Your task to perform on an android device: turn on the 12-hour format for clock Image 0: 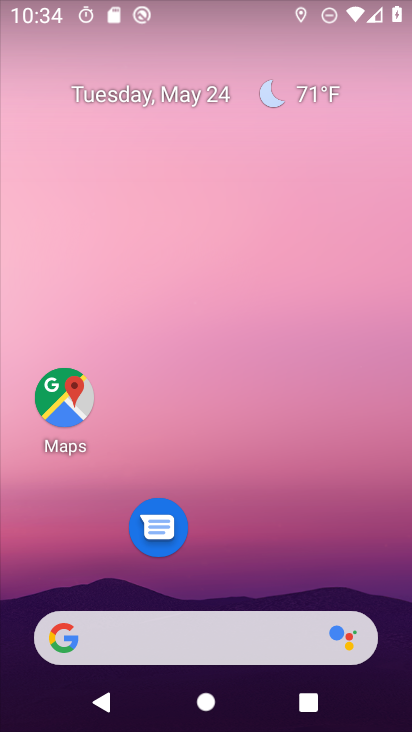
Step 0: drag from (229, 557) to (260, 105)
Your task to perform on an android device: turn on the 12-hour format for clock Image 1: 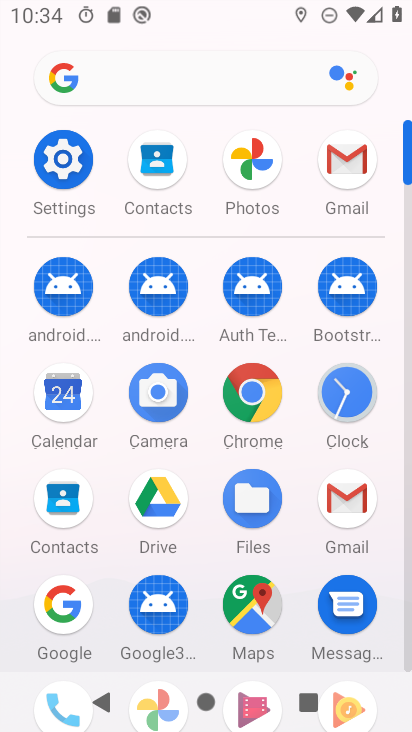
Step 1: click (347, 394)
Your task to perform on an android device: turn on the 12-hour format for clock Image 2: 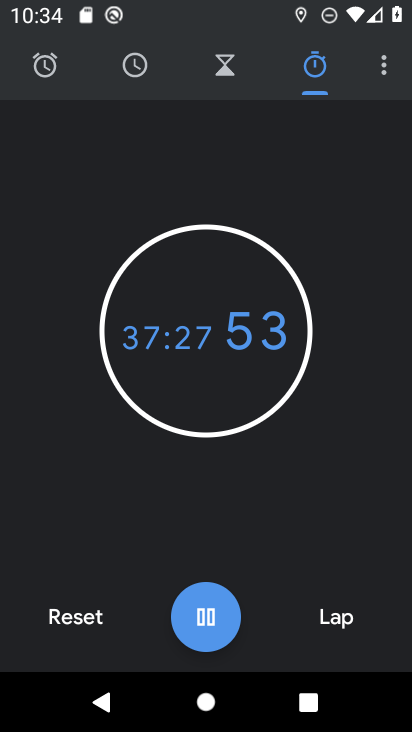
Step 2: click (374, 73)
Your task to perform on an android device: turn on the 12-hour format for clock Image 3: 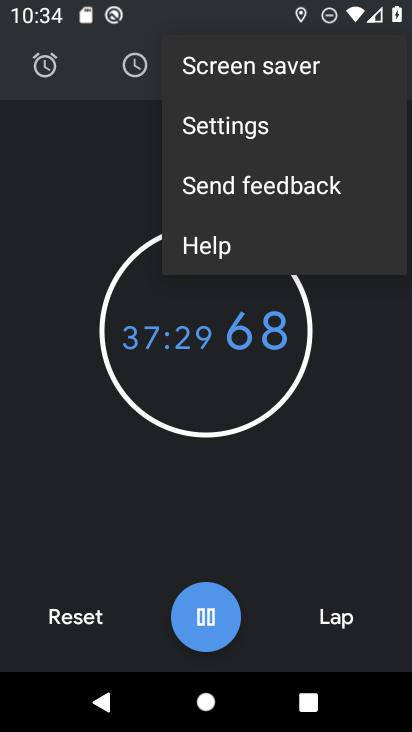
Step 3: click (295, 116)
Your task to perform on an android device: turn on the 12-hour format for clock Image 4: 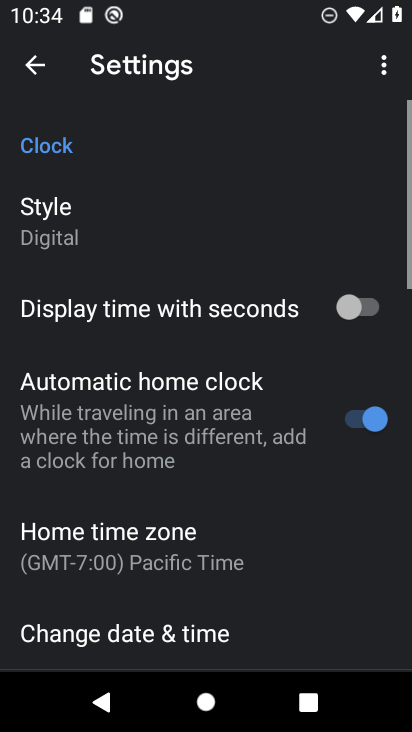
Step 4: drag from (215, 585) to (217, 251)
Your task to perform on an android device: turn on the 12-hour format for clock Image 5: 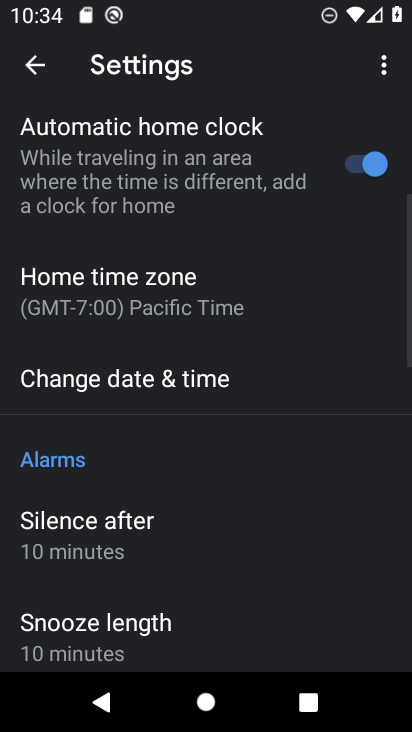
Step 5: click (162, 374)
Your task to perform on an android device: turn on the 12-hour format for clock Image 6: 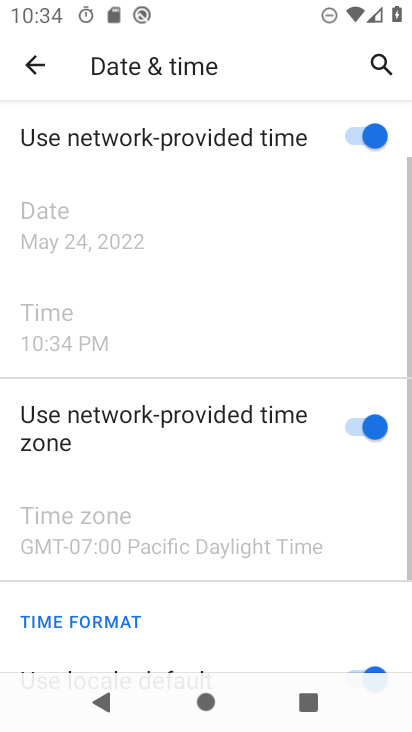
Step 6: task complete